Your task to perform on an android device: Search for vegetarian restaurants on Maps Image 0: 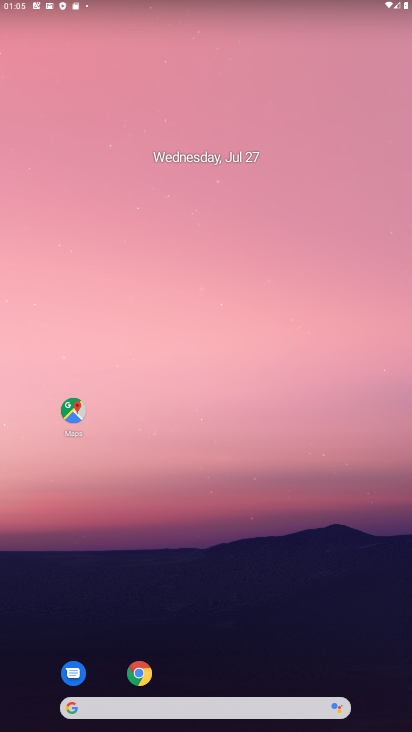
Step 0: drag from (240, 657) to (255, 202)
Your task to perform on an android device: Search for vegetarian restaurants on Maps Image 1: 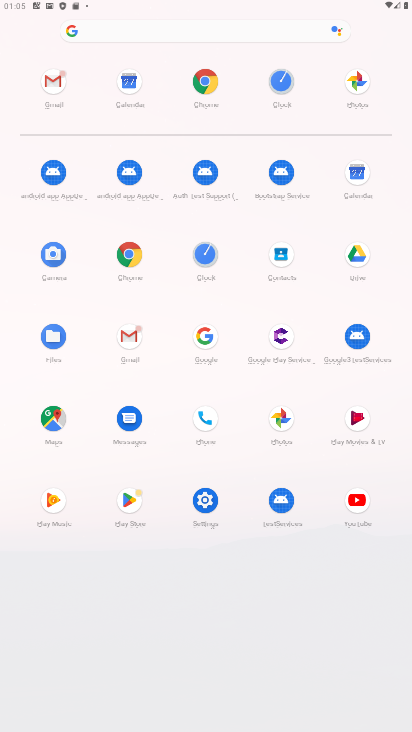
Step 1: click (60, 420)
Your task to perform on an android device: Search for vegetarian restaurants on Maps Image 2: 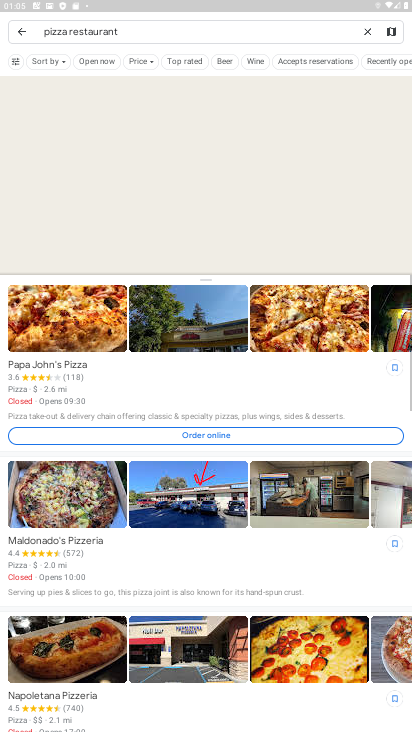
Step 2: click (363, 31)
Your task to perform on an android device: Search for vegetarian restaurants on Maps Image 3: 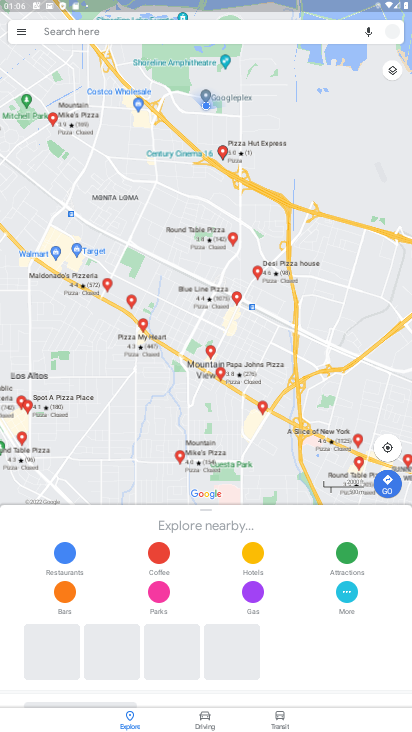
Step 3: click (243, 29)
Your task to perform on an android device: Search for vegetarian restaurants on Maps Image 4: 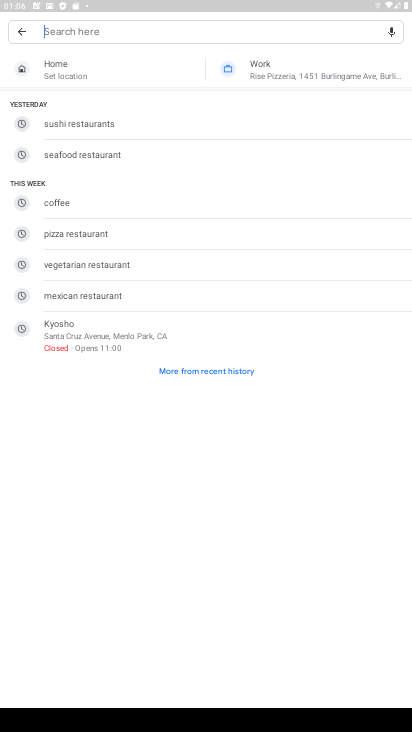
Step 4: click (109, 261)
Your task to perform on an android device: Search for vegetarian restaurants on Maps Image 5: 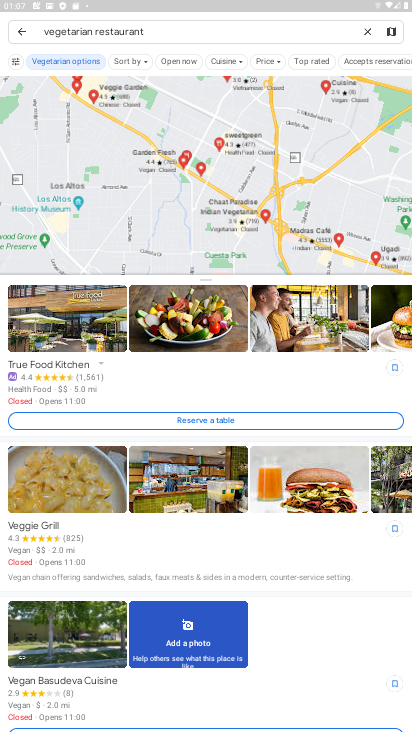
Step 5: task complete